Your task to perform on an android device: add a label to a message in the gmail app Image 0: 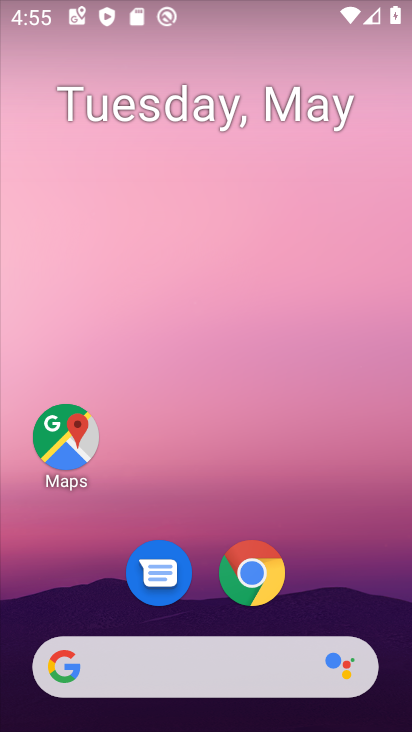
Step 0: drag from (257, 251) to (255, 64)
Your task to perform on an android device: add a label to a message in the gmail app Image 1: 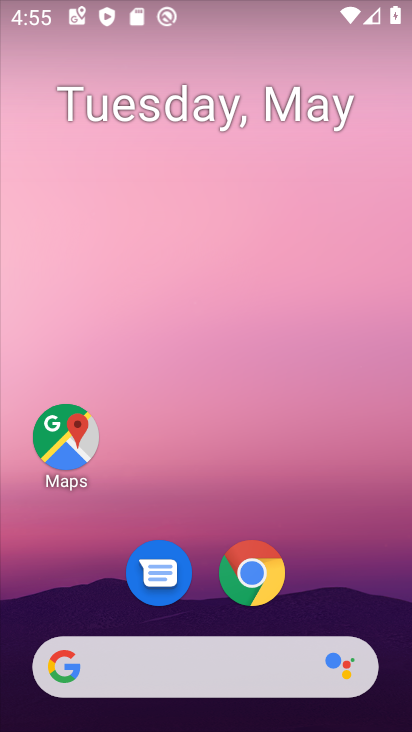
Step 1: drag from (197, 607) to (185, 63)
Your task to perform on an android device: add a label to a message in the gmail app Image 2: 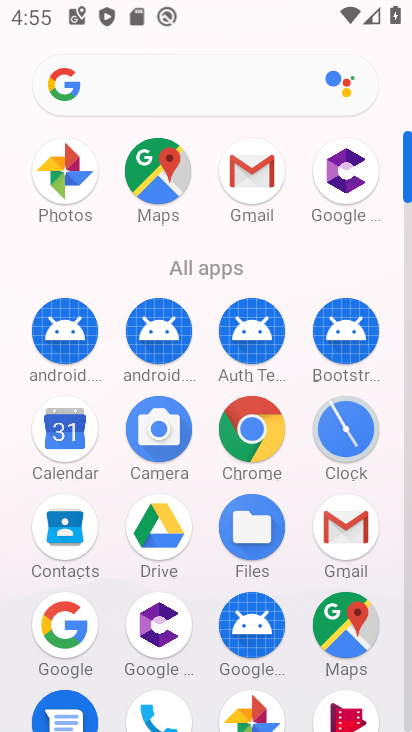
Step 2: click (259, 174)
Your task to perform on an android device: add a label to a message in the gmail app Image 3: 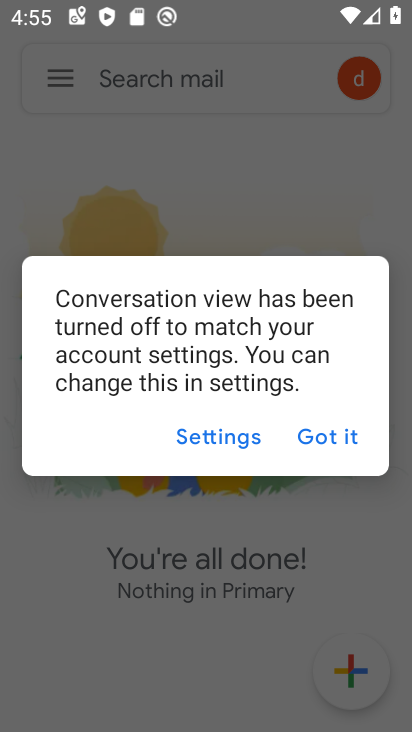
Step 3: click (315, 445)
Your task to perform on an android device: add a label to a message in the gmail app Image 4: 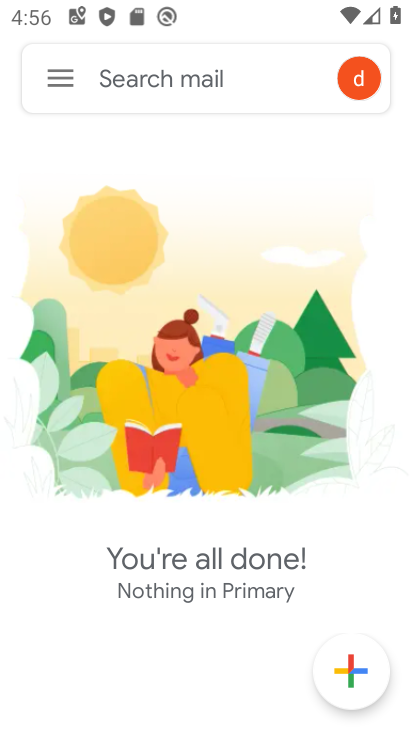
Step 4: task complete